Your task to perform on an android device: Open the map Image 0: 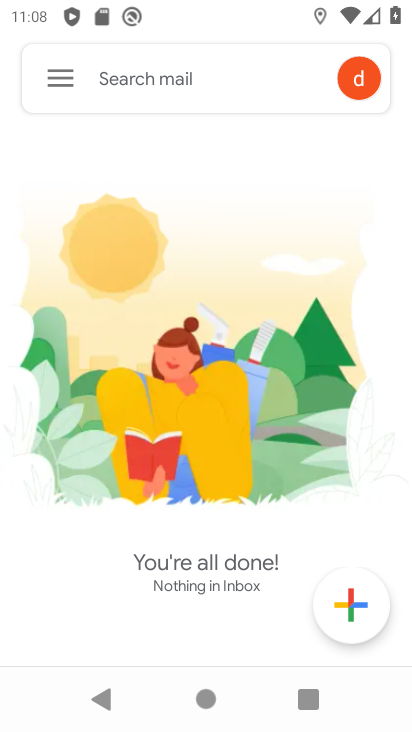
Step 0: press home button
Your task to perform on an android device: Open the map Image 1: 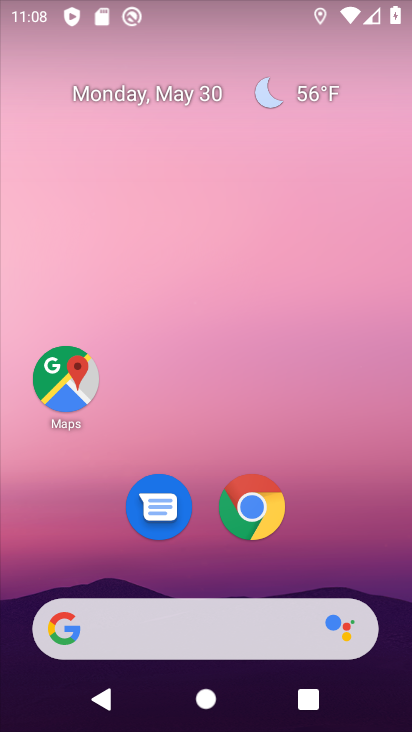
Step 1: click (80, 391)
Your task to perform on an android device: Open the map Image 2: 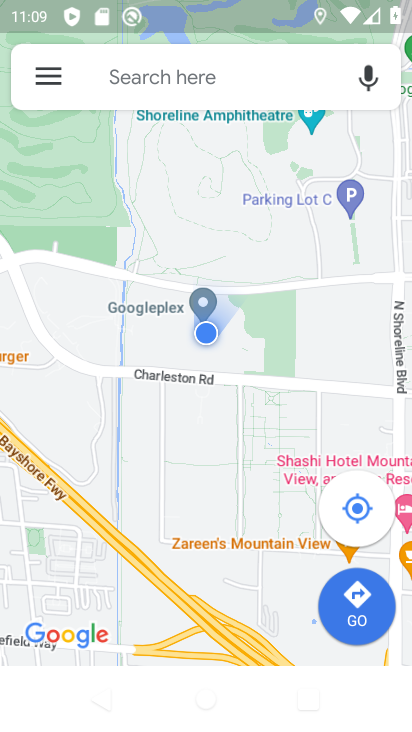
Step 2: task complete